Your task to perform on an android device: Open Google Image 0: 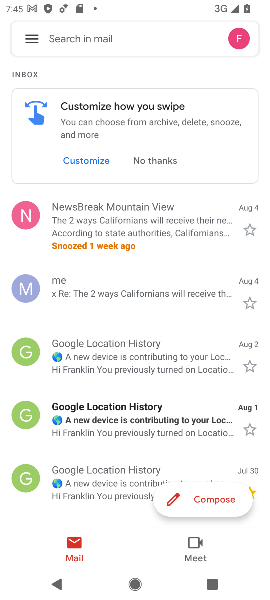
Step 0: press home button
Your task to perform on an android device: Open Google Image 1: 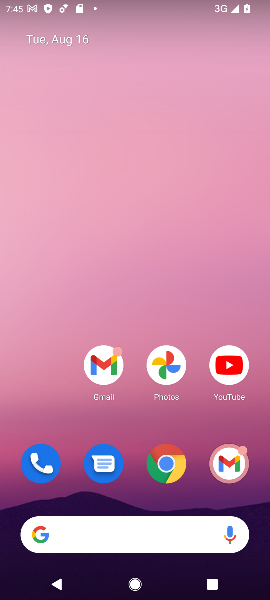
Step 1: click (37, 533)
Your task to perform on an android device: Open Google Image 2: 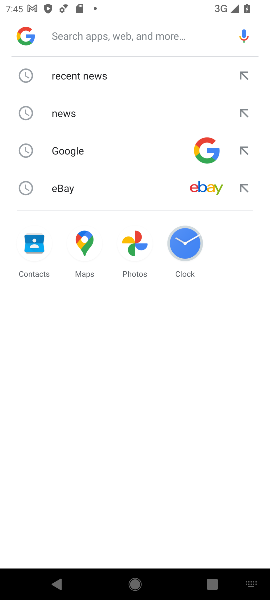
Step 2: click (24, 28)
Your task to perform on an android device: Open Google Image 3: 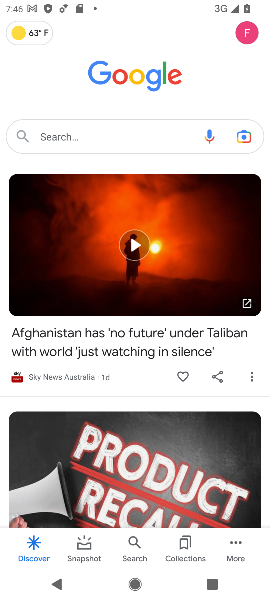
Step 3: task complete